Your task to perform on an android device: check storage Image 0: 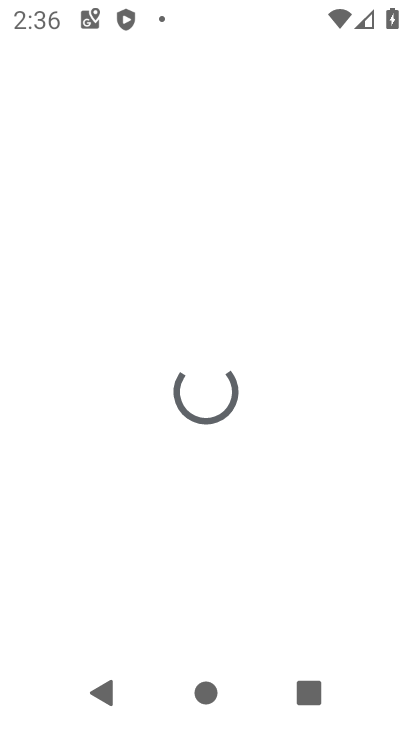
Step 0: press home button
Your task to perform on an android device: check storage Image 1: 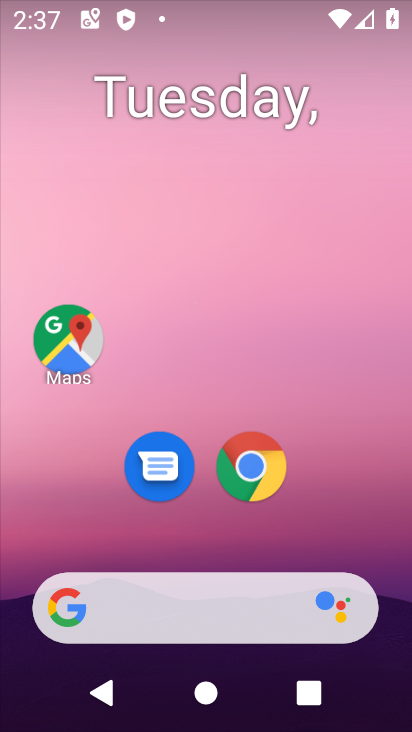
Step 1: task complete